Your task to perform on an android device: View the shopping cart on newegg. Add dell alienware to the cart on newegg Image 0: 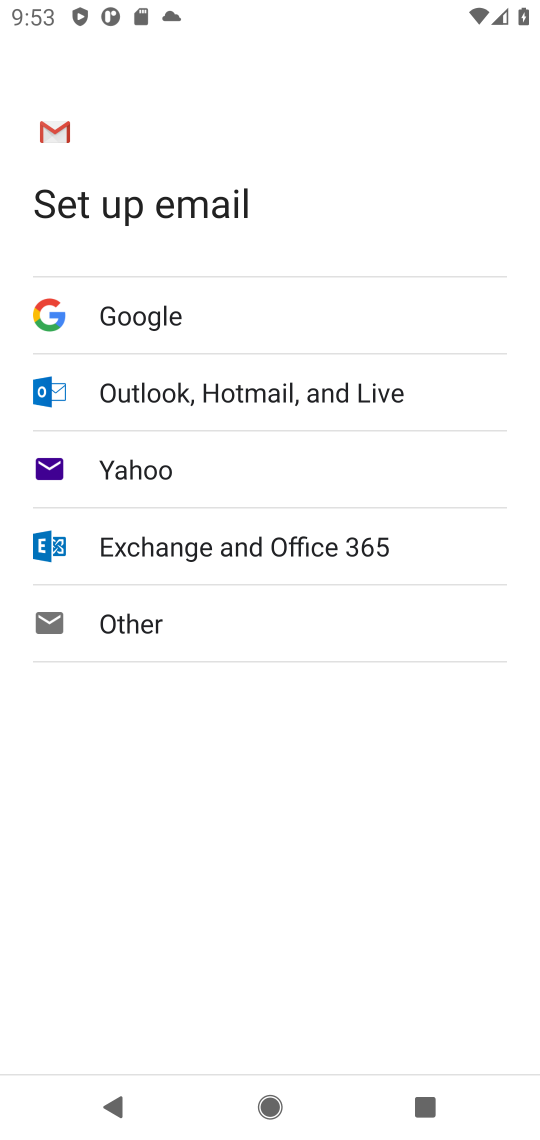
Step 0: press home button
Your task to perform on an android device: View the shopping cart on newegg. Add dell alienware to the cart on newegg Image 1: 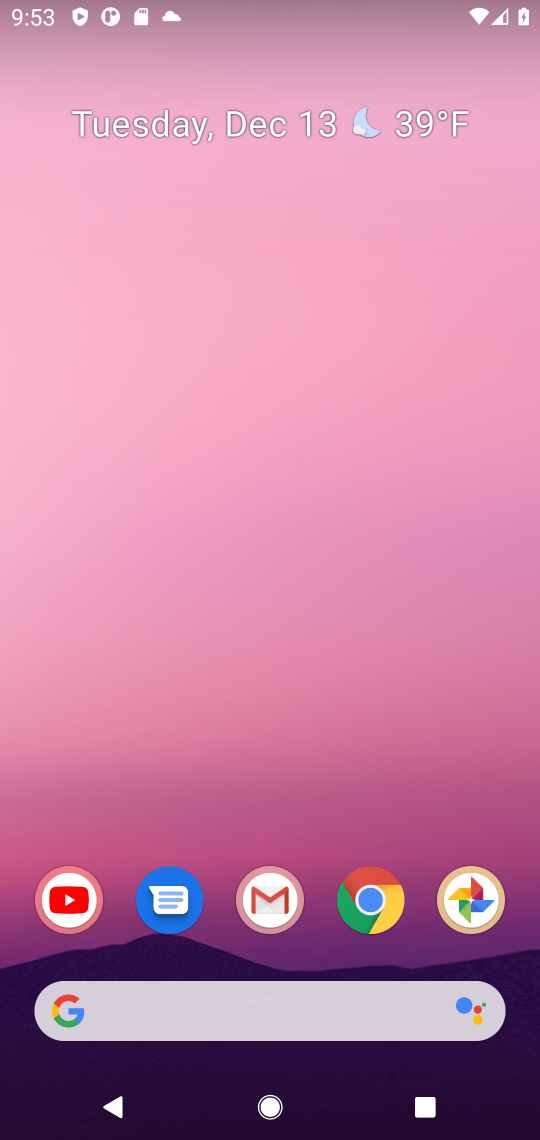
Step 1: click (351, 898)
Your task to perform on an android device: View the shopping cart on newegg. Add dell alienware to the cart on newegg Image 2: 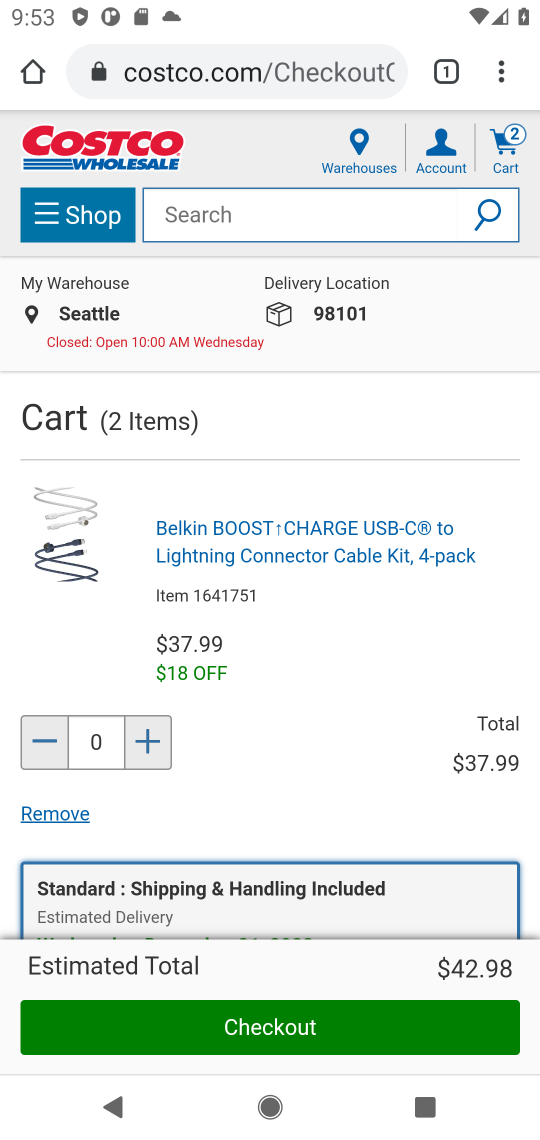
Step 2: click (275, 67)
Your task to perform on an android device: View the shopping cart on newegg. Add dell alienware to the cart on newegg Image 3: 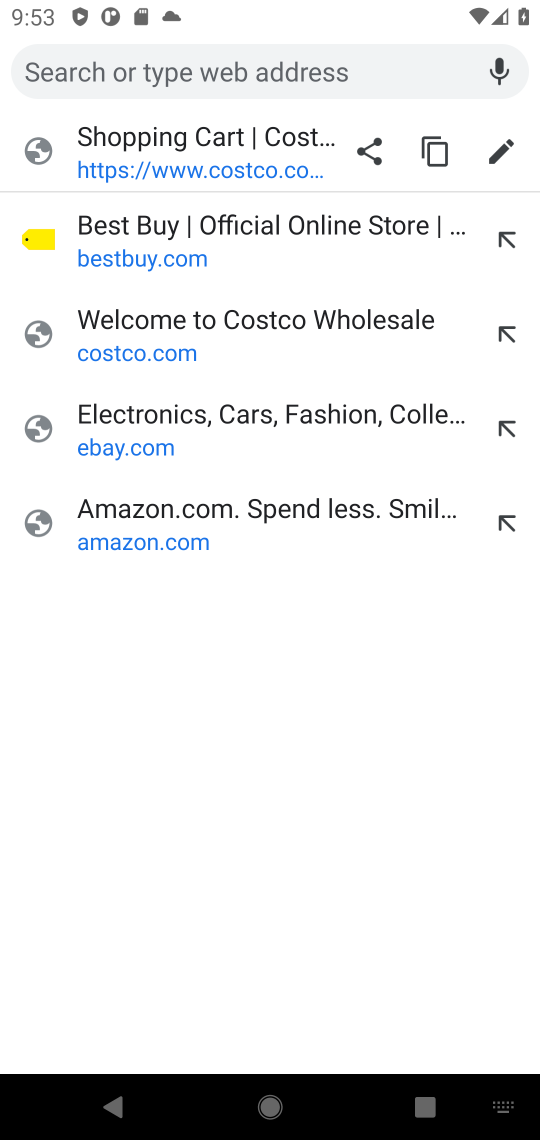
Step 3: type "NEWEGG"
Your task to perform on an android device: View the shopping cart on newegg. Add dell alienware to the cart on newegg Image 4: 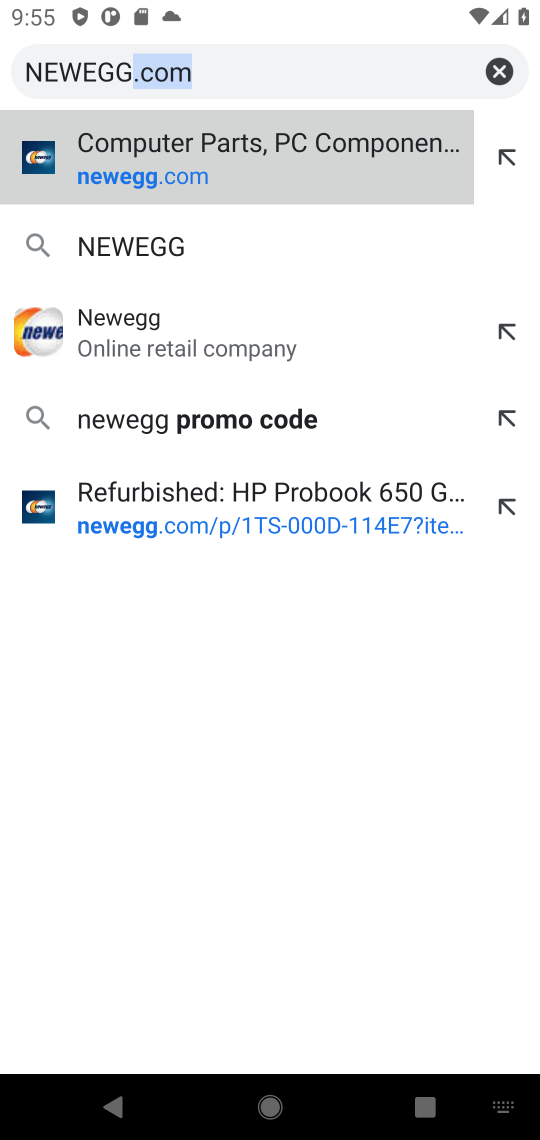
Step 4: click (194, 177)
Your task to perform on an android device: View the shopping cart on newegg. Add dell alienware to the cart on newegg Image 5: 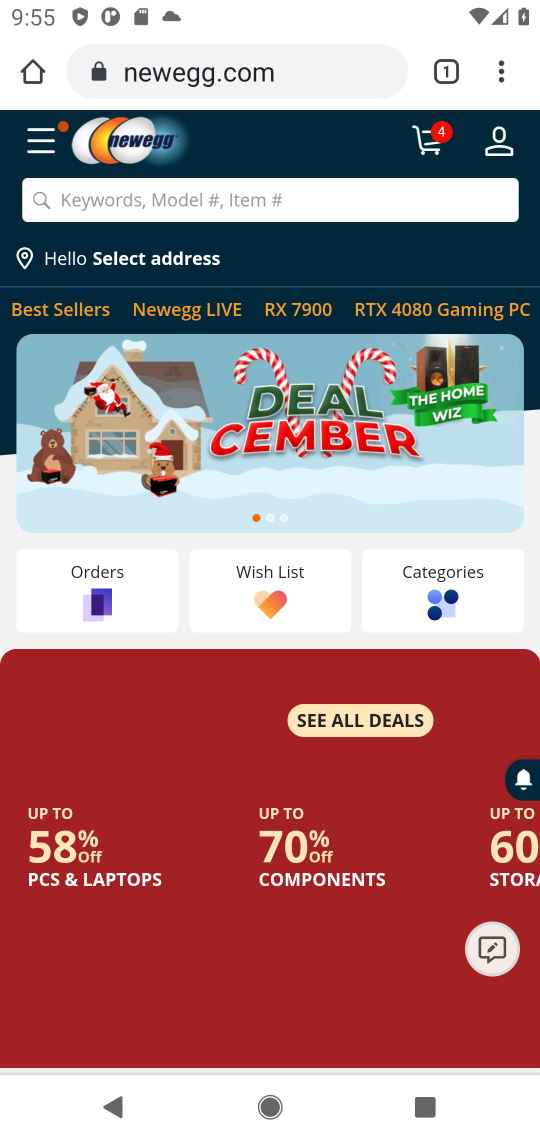
Step 5: click (157, 200)
Your task to perform on an android device: View the shopping cart on newegg. Add dell alienware to the cart on newegg Image 6: 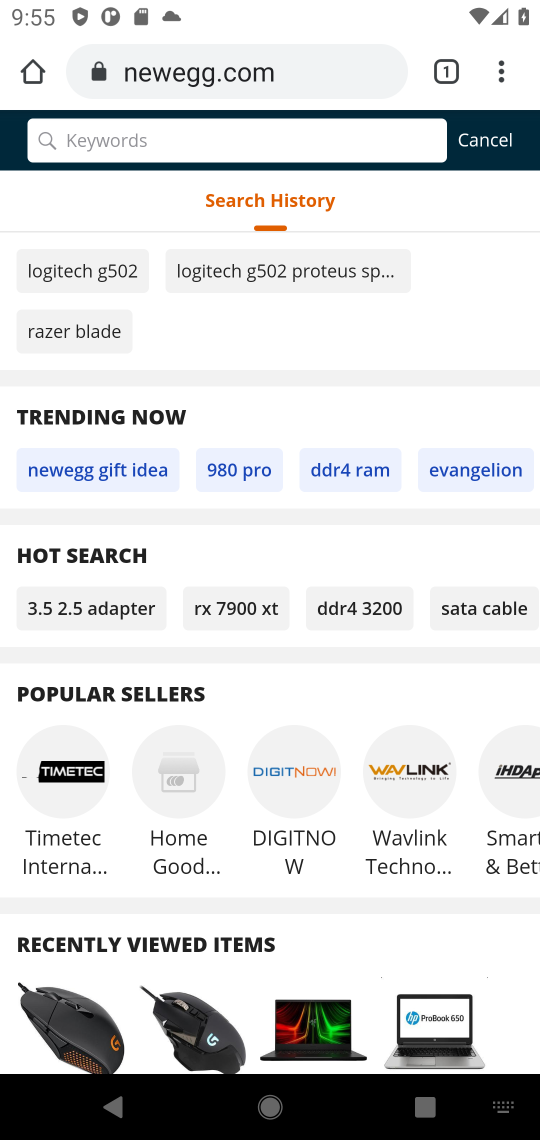
Step 6: type "dell alienware"
Your task to perform on an android device: View the shopping cart on newegg. Add dell alienware to the cart on newegg Image 7: 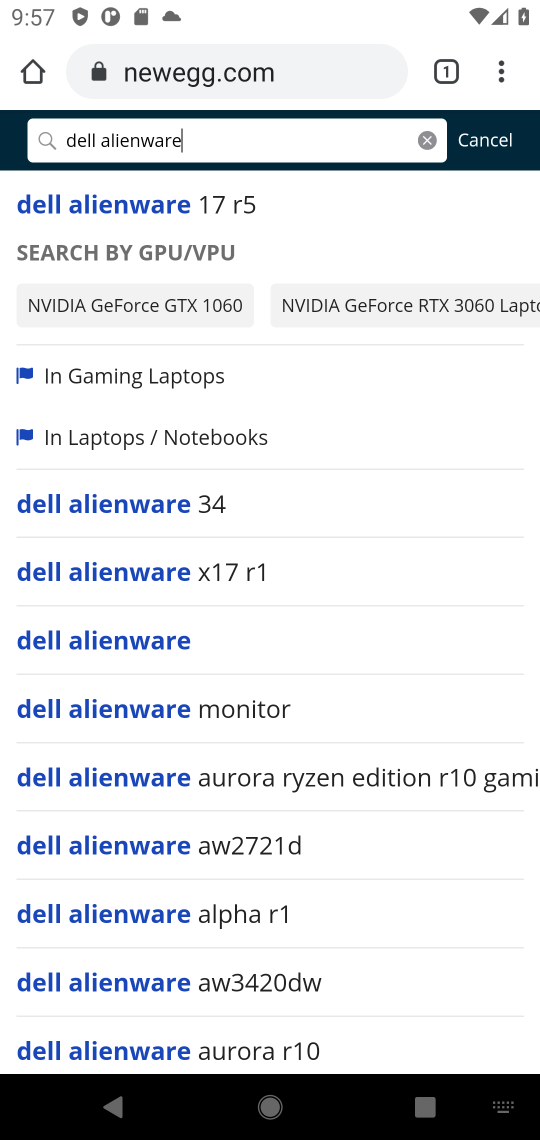
Step 7: click (140, 205)
Your task to perform on an android device: View the shopping cart on newegg. Add dell alienware to the cart on newegg Image 8: 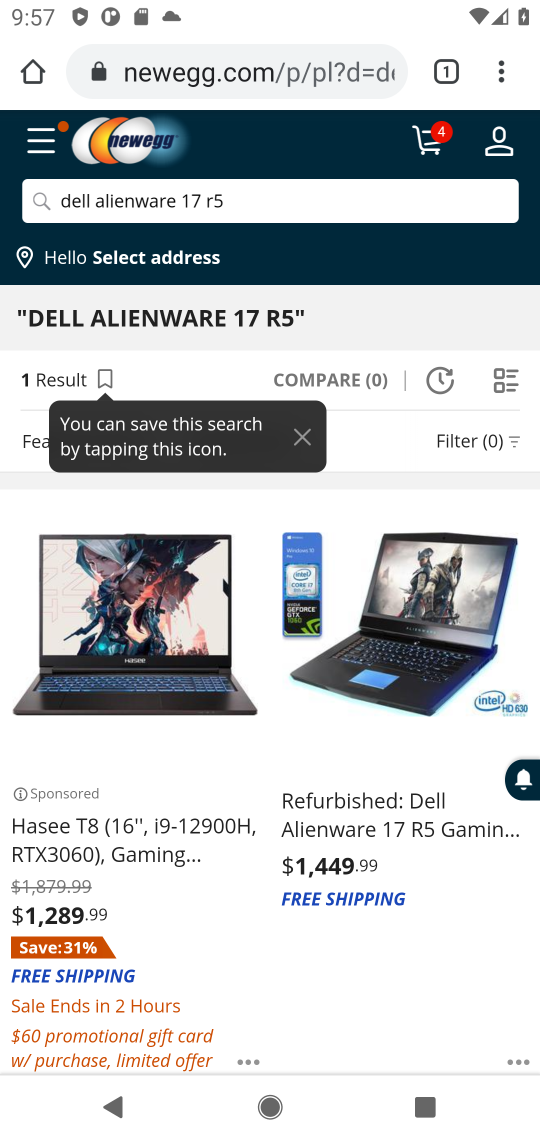
Step 8: click (108, 658)
Your task to perform on an android device: View the shopping cart on newegg. Add dell alienware to the cart on newegg Image 9: 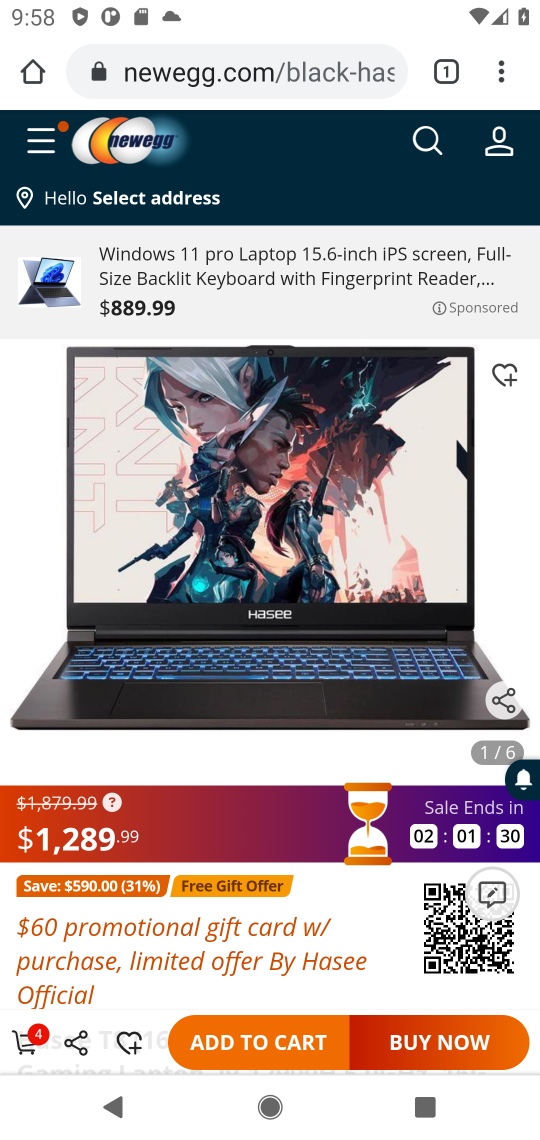
Step 9: click (208, 1033)
Your task to perform on an android device: View the shopping cart on newegg. Add dell alienware to the cart on newegg Image 10: 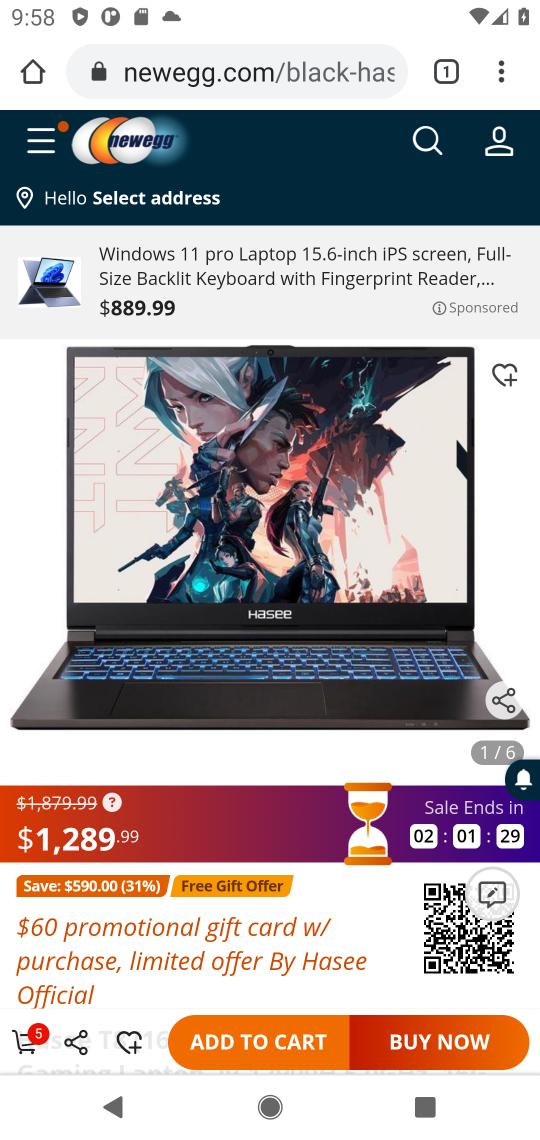
Step 10: task complete